Your task to perform on an android device: Open Youtube and go to "Your channel" Image 0: 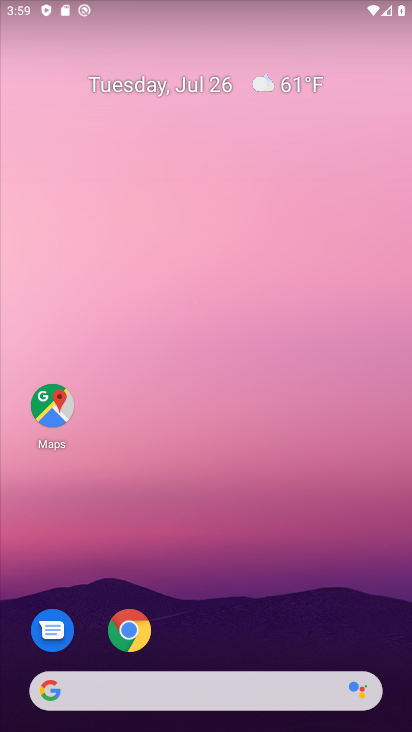
Step 0: drag from (254, 584) to (202, 309)
Your task to perform on an android device: Open Youtube and go to "Your channel" Image 1: 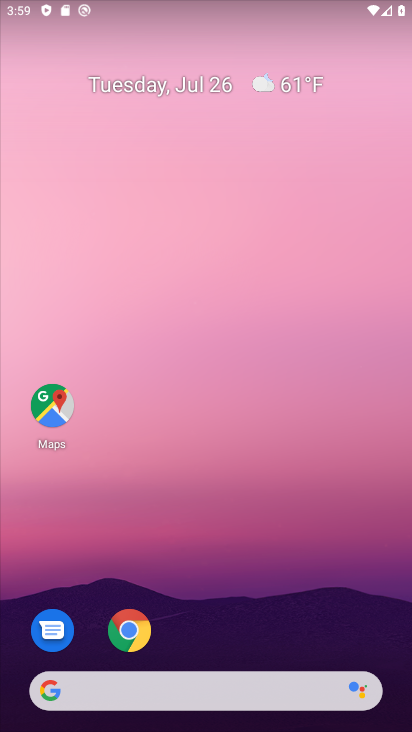
Step 1: drag from (204, 629) to (226, 207)
Your task to perform on an android device: Open Youtube and go to "Your channel" Image 2: 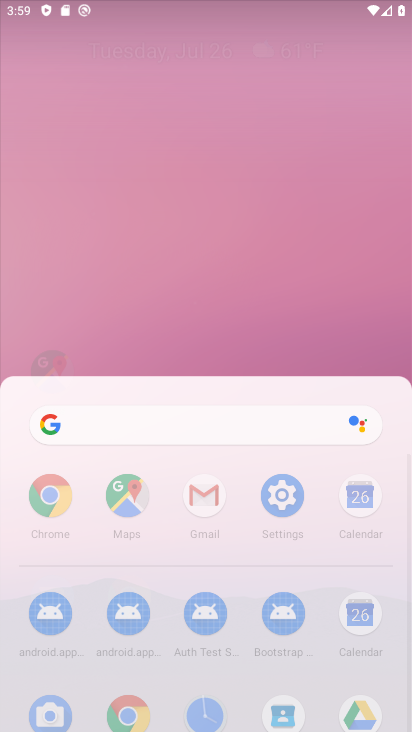
Step 2: click (242, 47)
Your task to perform on an android device: Open Youtube and go to "Your channel" Image 3: 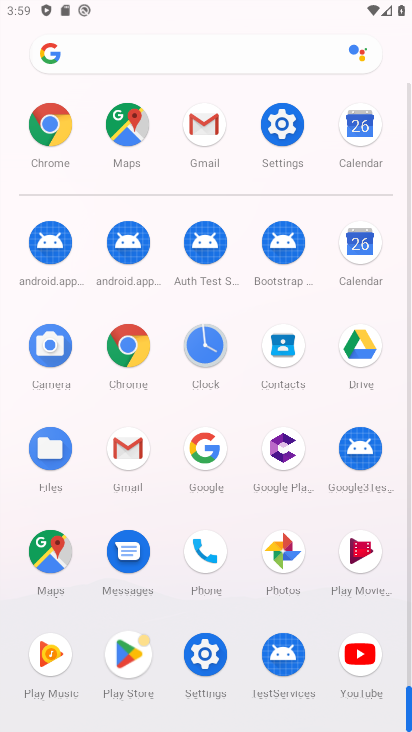
Step 3: drag from (228, 425) to (190, 87)
Your task to perform on an android device: Open Youtube and go to "Your channel" Image 4: 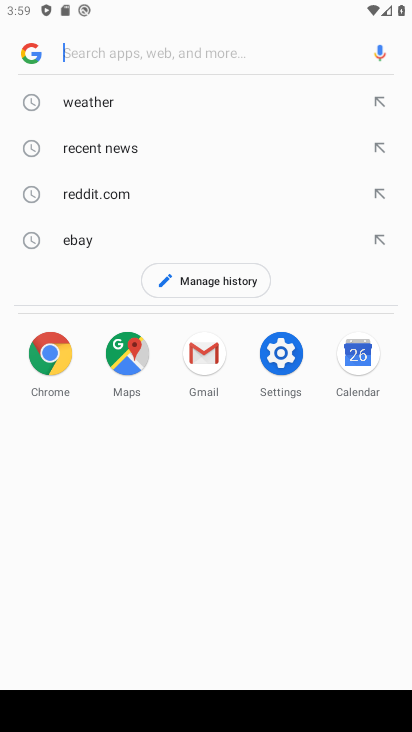
Step 4: press back button
Your task to perform on an android device: Open Youtube and go to "Your channel" Image 5: 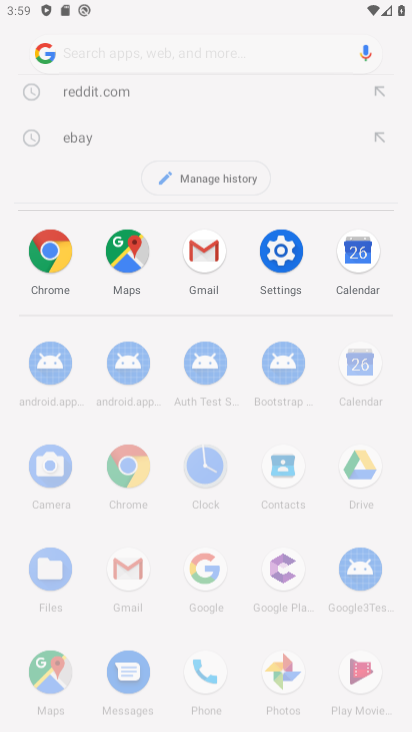
Step 5: press back button
Your task to perform on an android device: Open Youtube and go to "Your channel" Image 6: 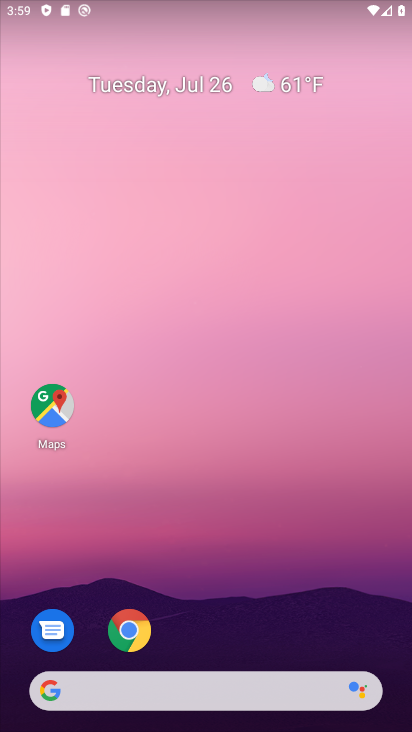
Step 6: drag from (194, 687) to (188, 238)
Your task to perform on an android device: Open Youtube and go to "Your channel" Image 7: 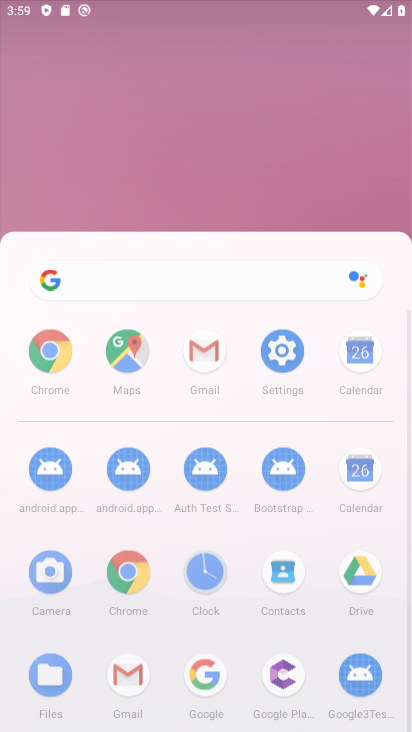
Step 7: drag from (280, 520) to (260, 19)
Your task to perform on an android device: Open Youtube and go to "Your channel" Image 8: 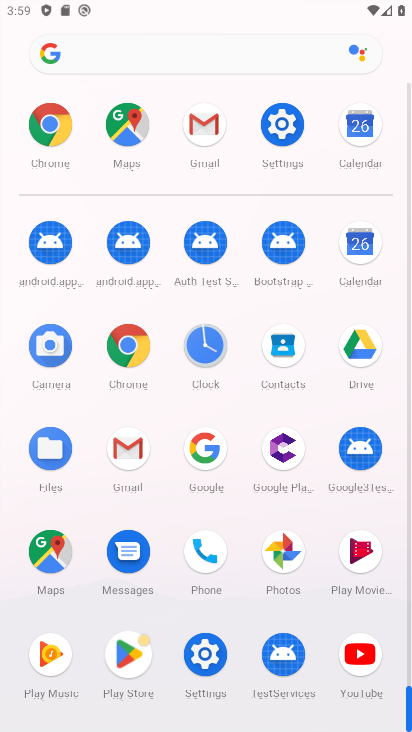
Step 8: drag from (322, 537) to (314, 129)
Your task to perform on an android device: Open Youtube and go to "Your channel" Image 9: 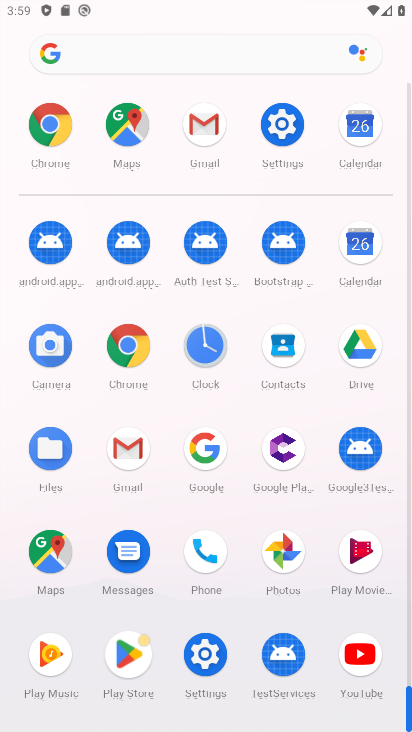
Step 9: click (361, 653)
Your task to perform on an android device: Open Youtube and go to "Your channel" Image 10: 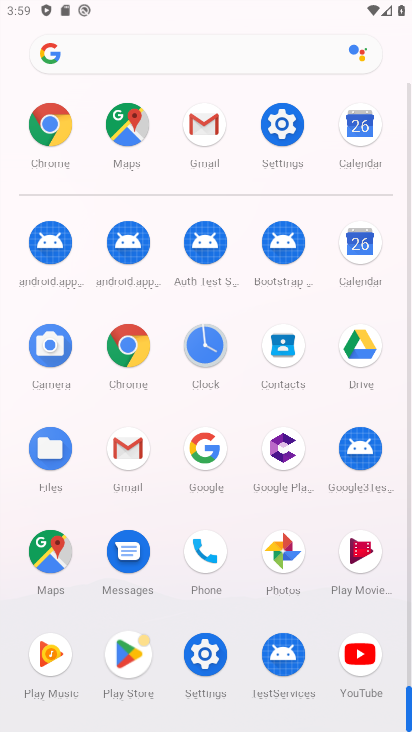
Step 10: click (361, 653)
Your task to perform on an android device: Open Youtube and go to "Your channel" Image 11: 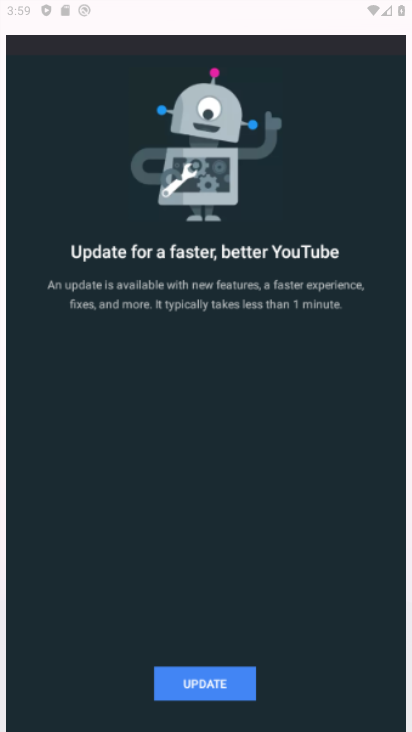
Step 11: click (362, 653)
Your task to perform on an android device: Open Youtube and go to "Your channel" Image 12: 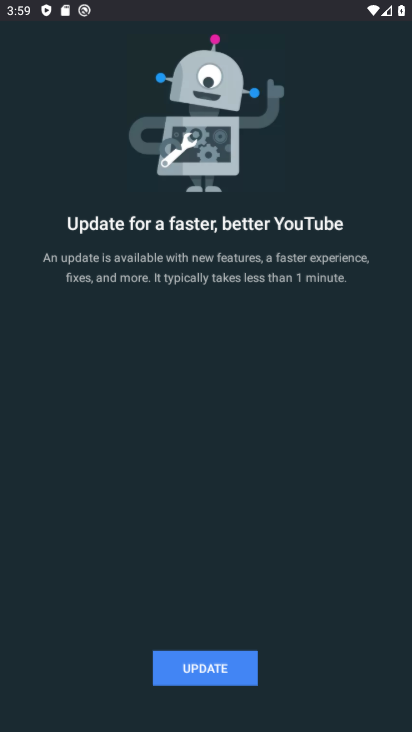
Step 12: click (362, 653)
Your task to perform on an android device: Open Youtube and go to "Your channel" Image 13: 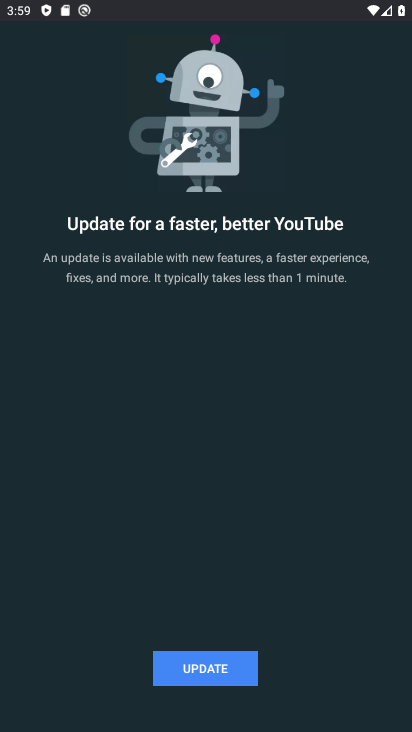
Step 13: click (182, 661)
Your task to perform on an android device: Open Youtube and go to "Your channel" Image 14: 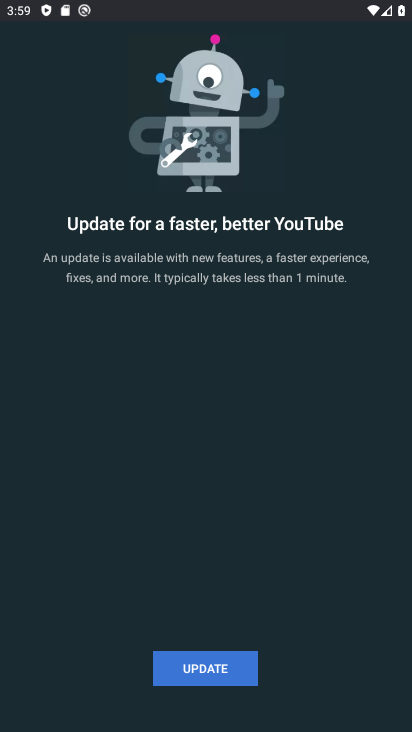
Step 14: click (183, 662)
Your task to perform on an android device: Open Youtube and go to "Your channel" Image 15: 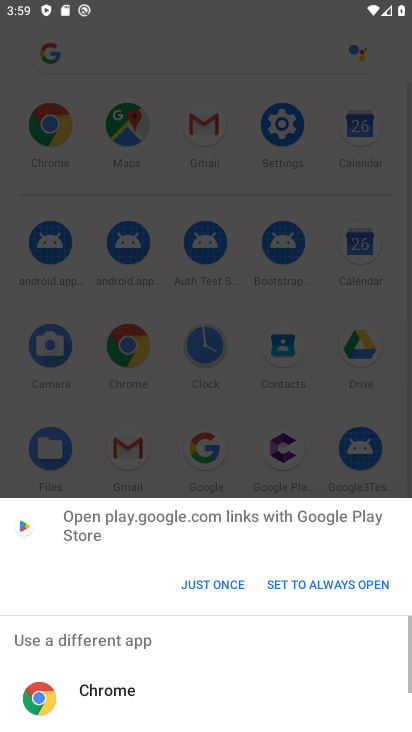
Step 15: click (103, 689)
Your task to perform on an android device: Open Youtube and go to "Your channel" Image 16: 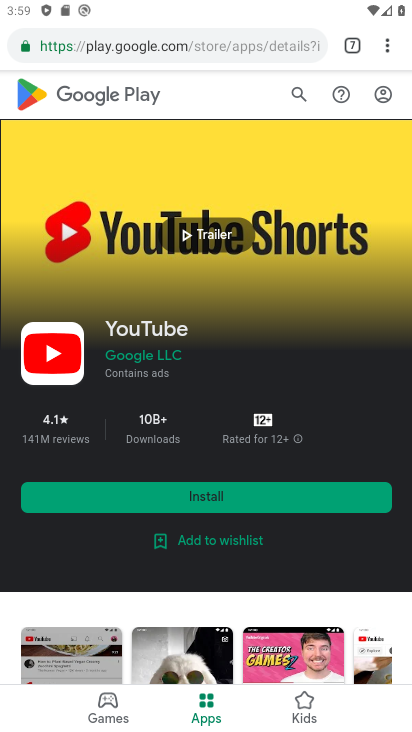
Step 16: task complete